Your task to perform on an android device: Turn off the flashlight Image 0: 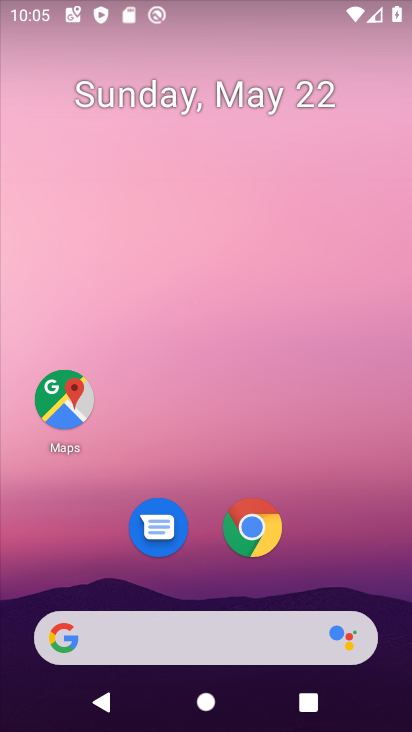
Step 0: drag from (355, 599) to (316, 189)
Your task to perform on an android device: Turn off the flashlight Image 1: 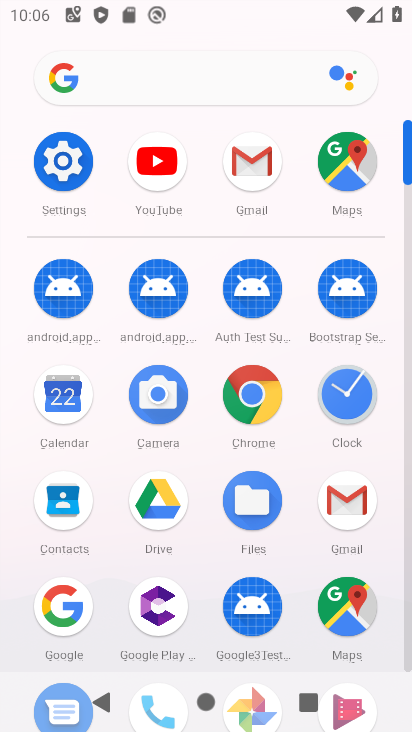
Step 1: click (64, 176)
Your task to perform on an android device: Turn off the flashlight Image 2: 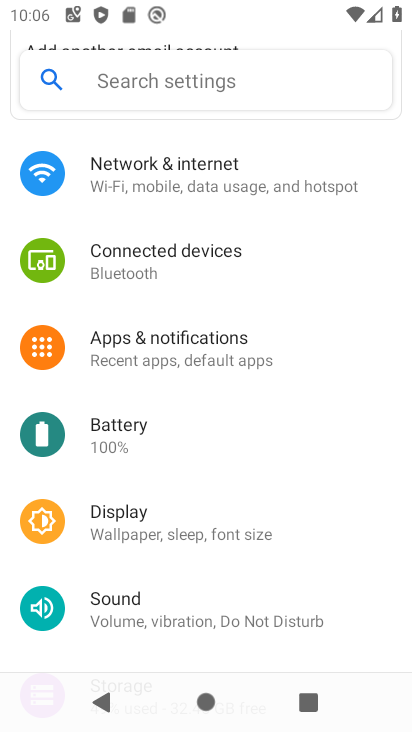
Step 2: task complete